Your task to perform on an android device: change the clock display to analog Image 0: 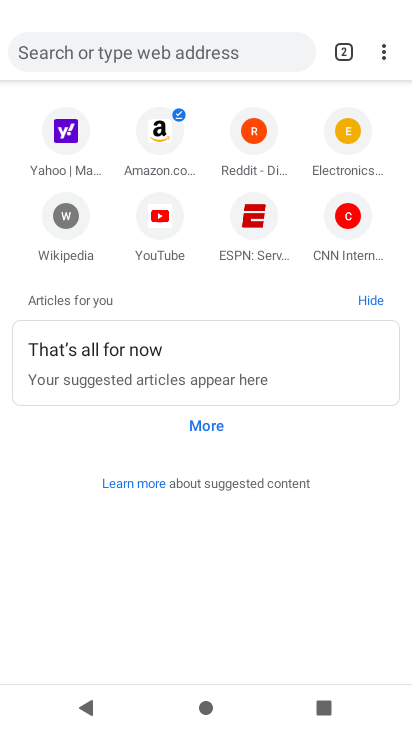
Step 0: press home button
Your task to perform on an android device: change the clock display to analog Image 1: 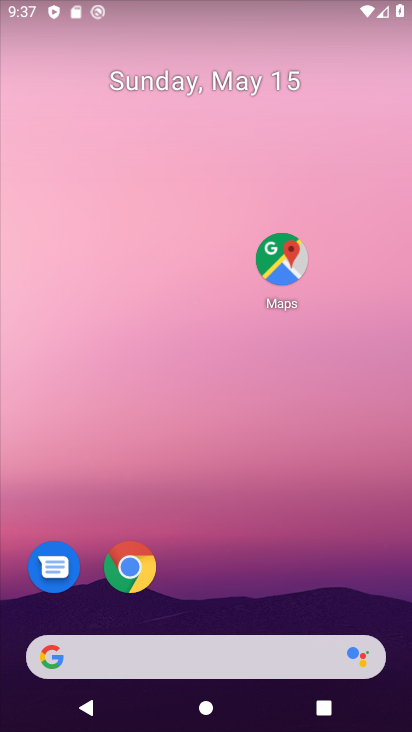
Step 1: drag from (287, 525) to (242, 100)
Your task to perform on an android device: change the clock display to analog Image 2: 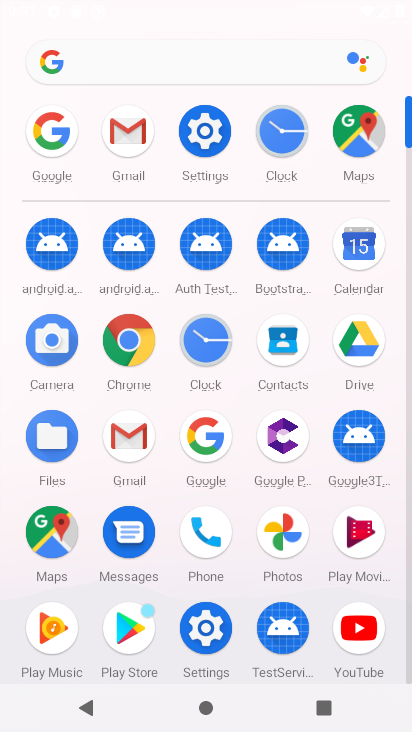
Step 2: click (208, 338)
Your task to perform on an android device: change the clock display to analog Image 3: 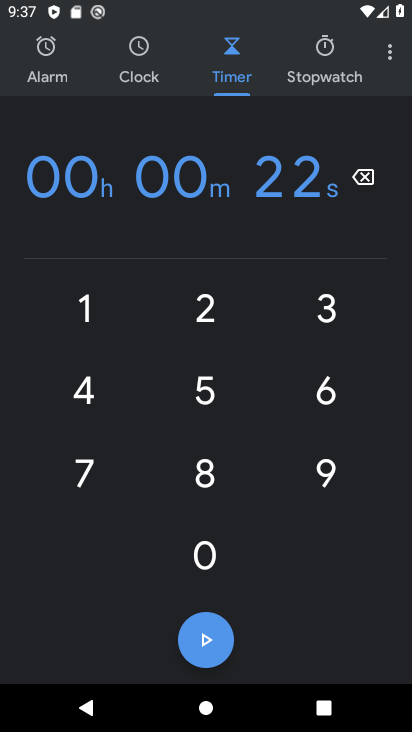
Step 3: click (381, 57)
Your task to perform on an android device: change the clock display to analog Image 4: 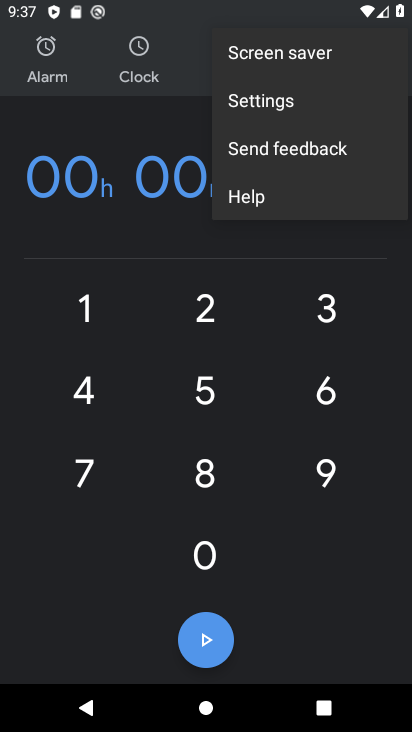
Step 4: click (254, 89)
Your task to perform on an android device: change the clock display to analog Image 5: 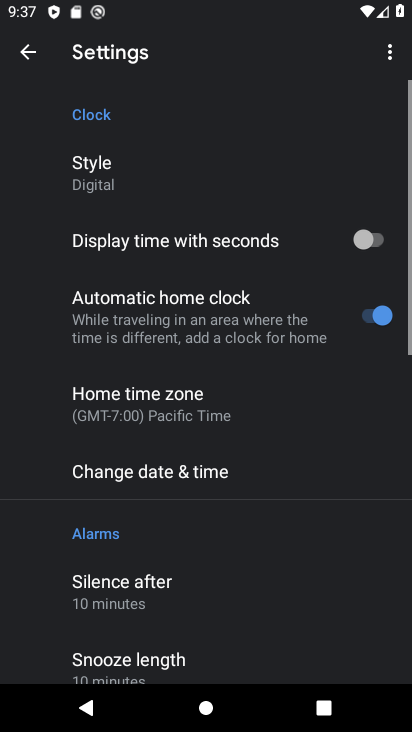
Step 5: click (113, 162)
Your task to perform on an android device: change the clock display to analog Image 6: 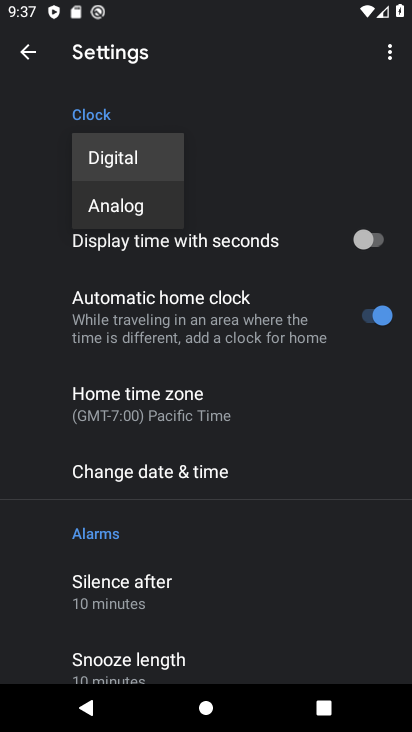
Step 6: click (130, 202)
Your task to perform on an android device: change the clock display to analog Image 7: 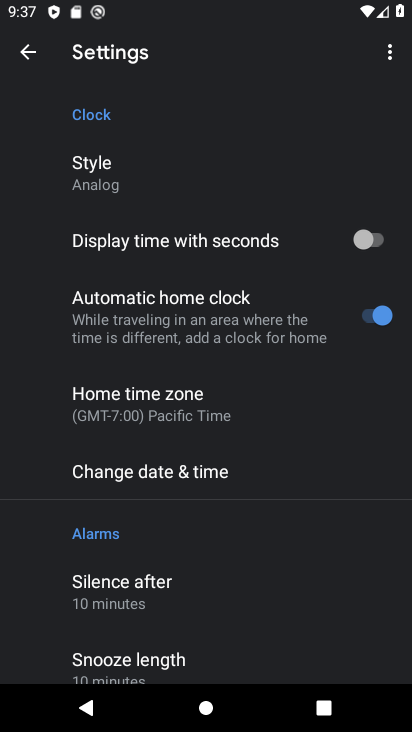
Step 7: task complete